Your task to perform on an android device: check storage Image 0: 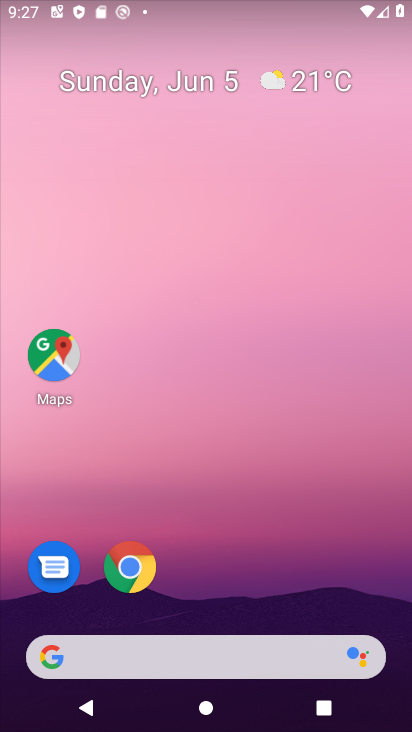
Step 0: drag from (173, 615) to (231, 213)
Your task to perform on an android device: check storage Image 1: 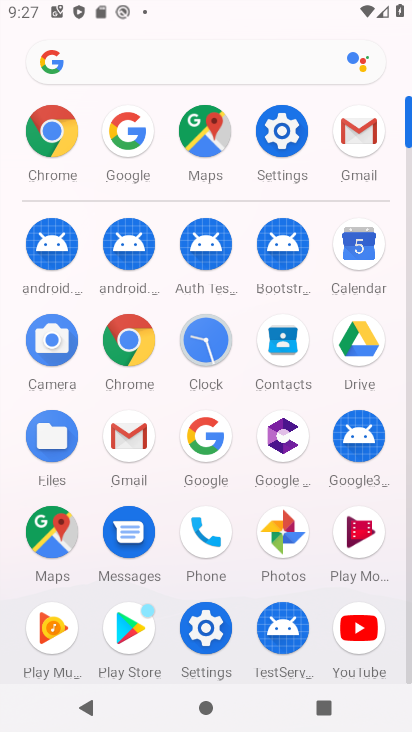
Step 1: click (285, 133)
Your task to perform on an android device: check storage Image 2: 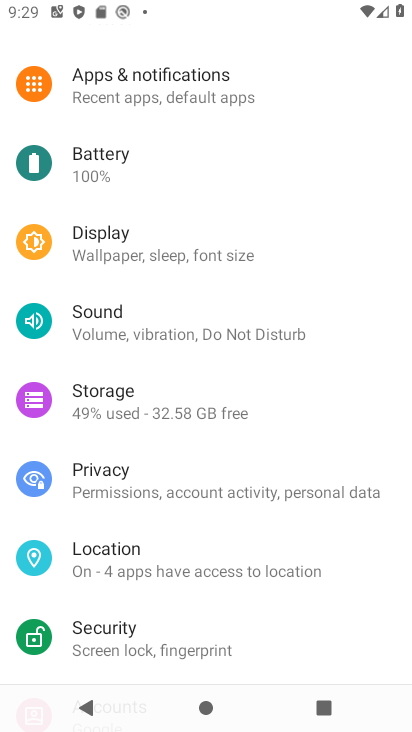
Step 2: click (123, 410)
Your task to perform on an android device: check storage Image 3: 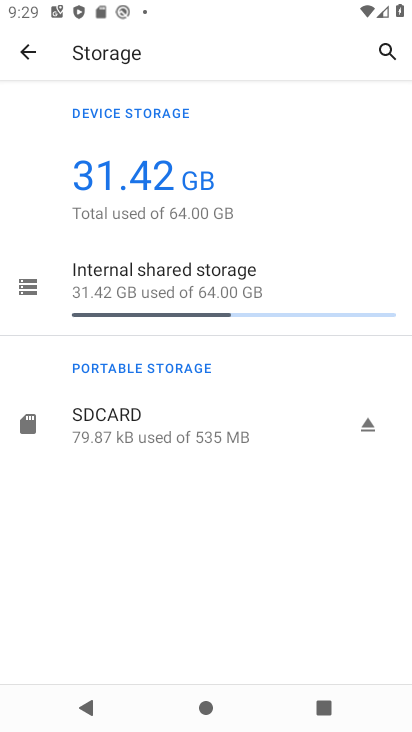
Step 3: task complete